Your task to perform on an android device: toggle notifications settings in the gmail app Image 0: 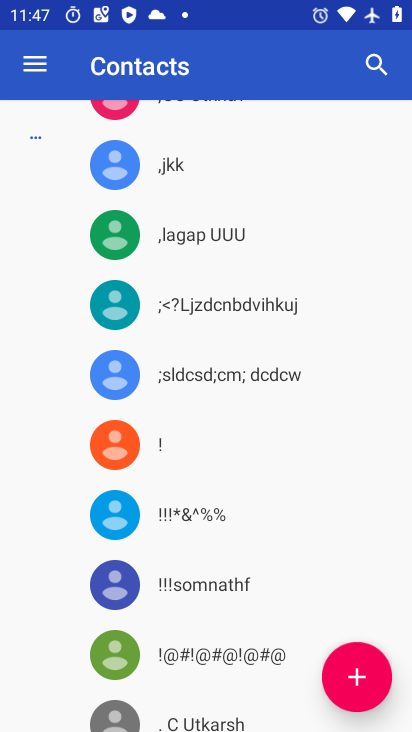
Step 0: press home button
Your task to perform on an android device: toggle notifications settings in the gmail app Image 1: 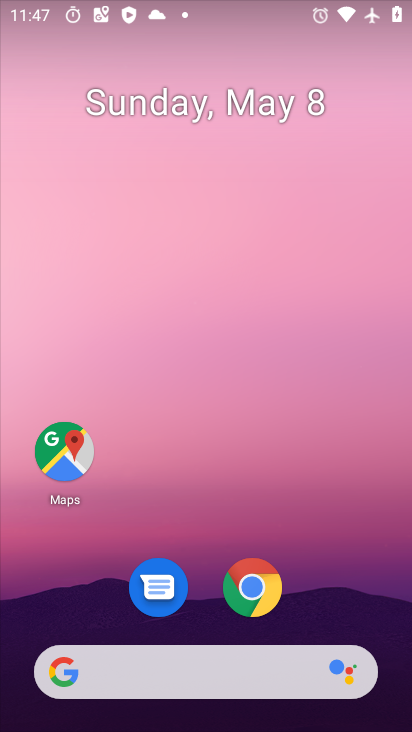
Step 1: drag from (379, 680) to (110, 4)
Your task to perform on an android device: toggle notifications settings in the gmail app Image 2: 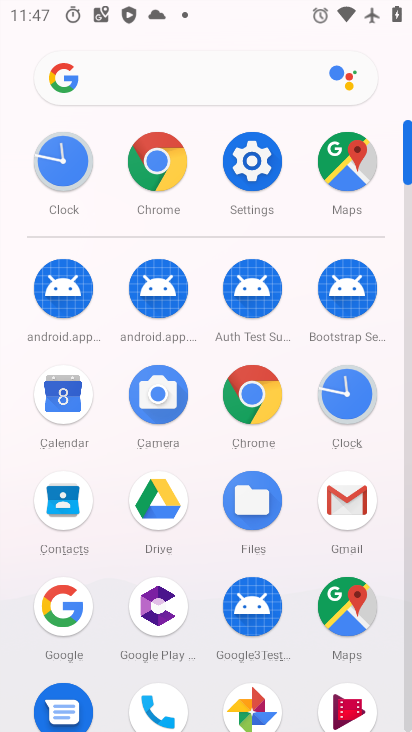
Step 2: click (341, 493)
Your task to perform on an android device: toggle notifications settings in the gmail app Image 3: 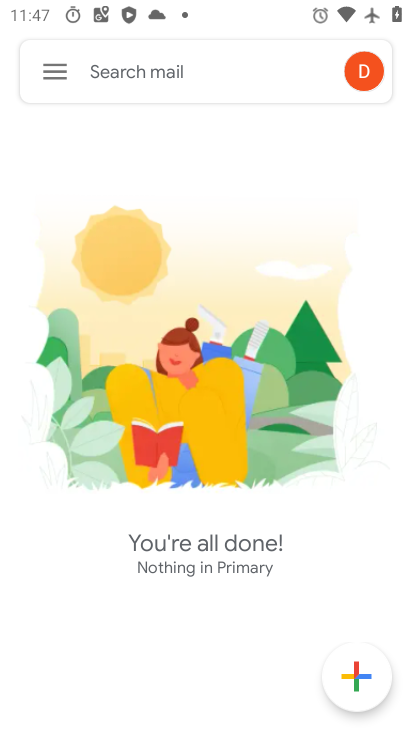
Step 3: click (49, 77)
Your task to perform on an android device: toggle notifications settings in the gmail app Image 4: 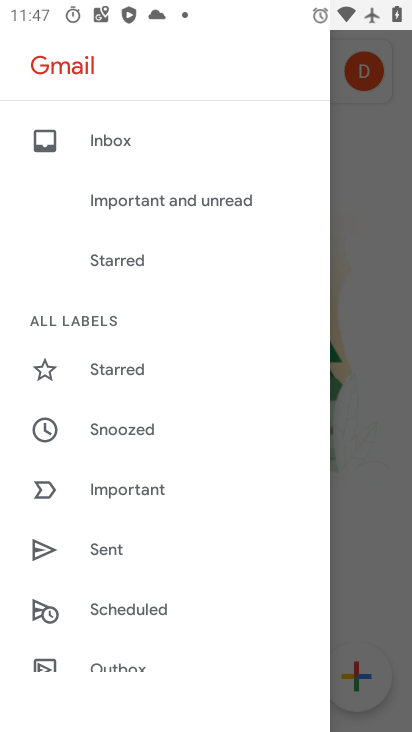
Step 4: drag from (130, 620) to (0, 191)
Your task to perform on an android device: toggle notifications settings in the gmail app Image 5: 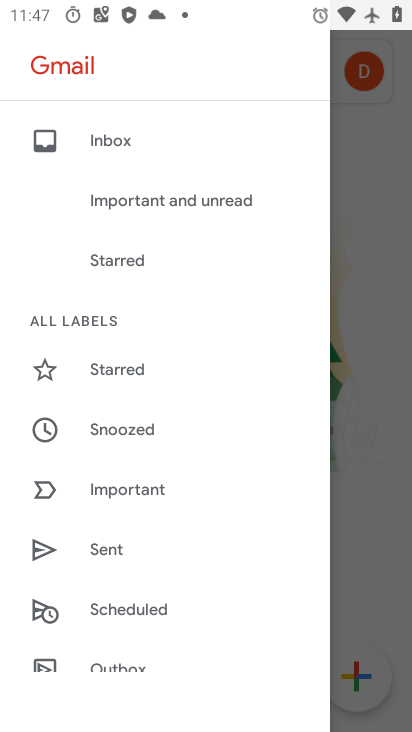
Step 5: drag from (198, 607) to (119, 264)
Your task to perform on an android device: toggle notifications settings in the gmail app Image 6: 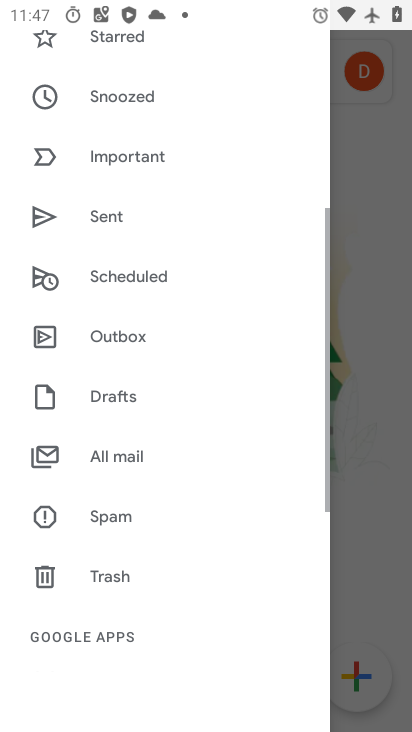
Step 6: drag from (172, 535) to (97, 212)
Your task to perform on an android device: toggle notifications settings in the gmail app Image 7: 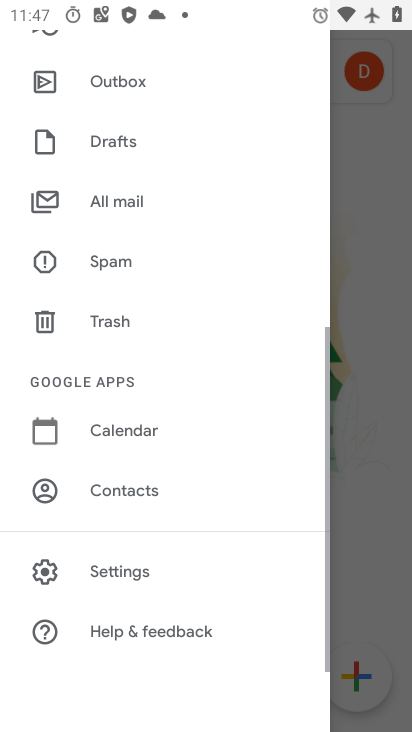
Step 7: drag from (163, 556) to (110, 252)
Your task to perform on an android device: toggle notifications settings in the gmail app Image 8: 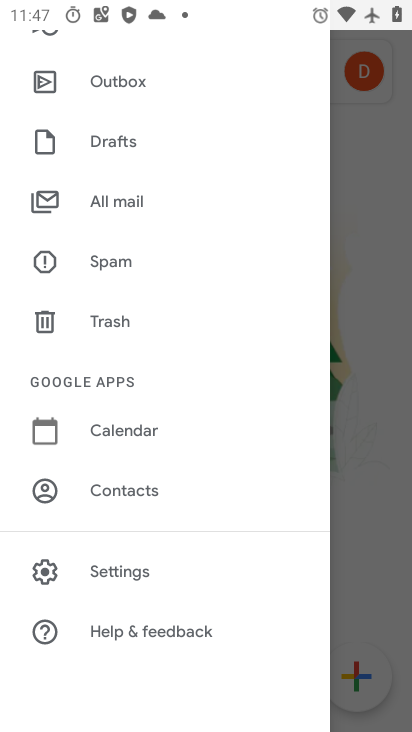
Step 8: click (125, 580)
Your task to perform on an android device: toggle notifications settings in the gmail app Image 9: 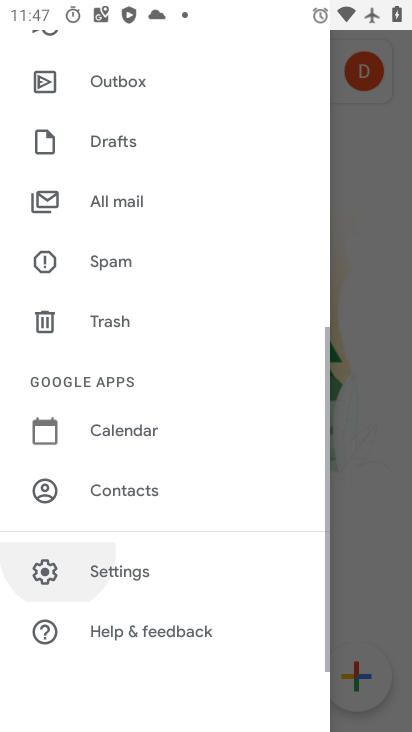
Step 9: click (124, 579)
Your task to perform on an android device: toggle notifications settings in the gmail app Image 10: 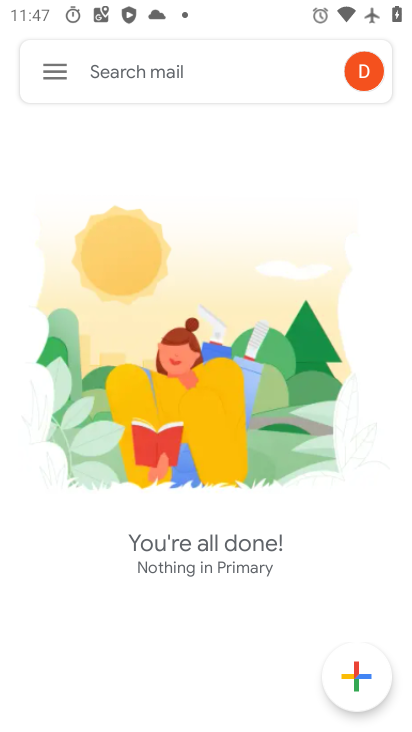
Step 10: click (121, 573)
Your task to perform on an android device: toggle notifications settings in the gmail app Image 11: 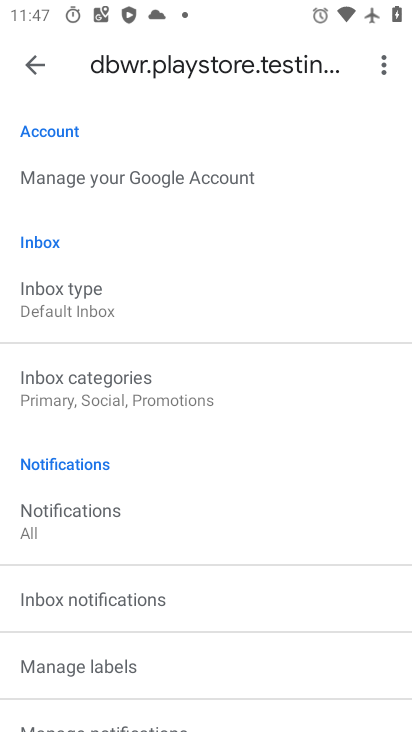
Step 11: click (76, 500)
Your task to perform on an android device: toggle notifications settings in the gmail app Image 12: 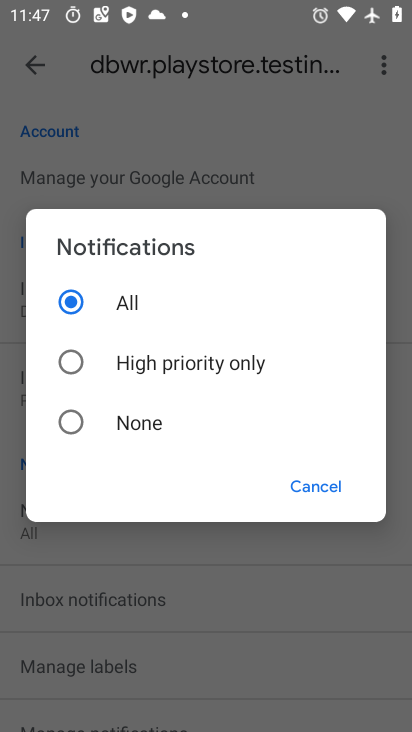
Step 12: click (65, 369)
Your task to perform on an android device: toggle notifications settings in the gmail app Image 13: 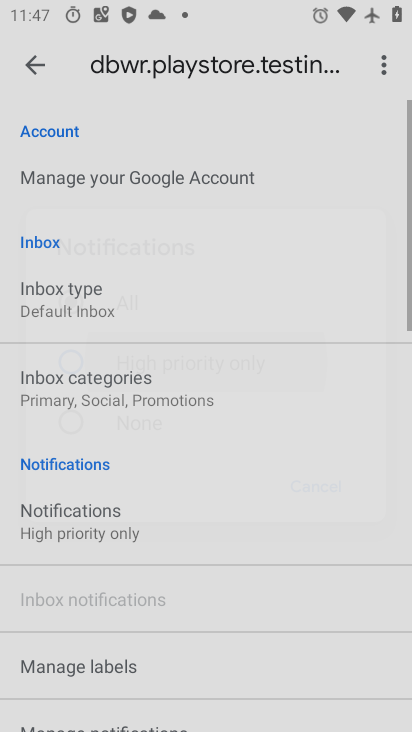
Step 13: click (65, 369)
Your task to perform on an android device: toggle notifications settings in the gmail app Image 14: 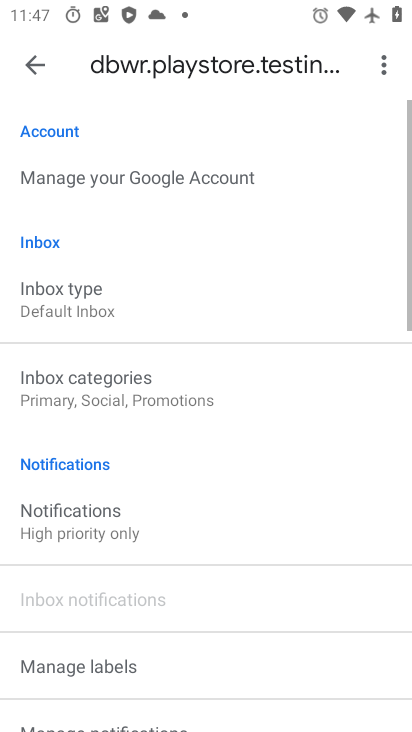
Step 14: click (65, 369)
Your task to perform on an android device: toggle notifications settings in the gmail app Image 15: 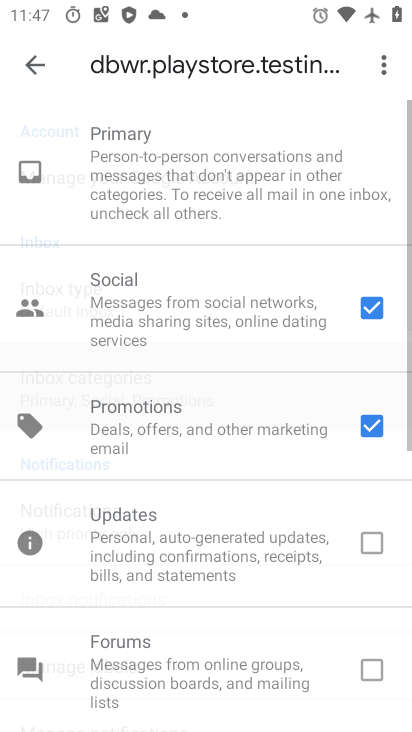
Step 15: click (65, 369)
Your task to perform on an android device: toggle notifications settings in the gmail app Image 16: 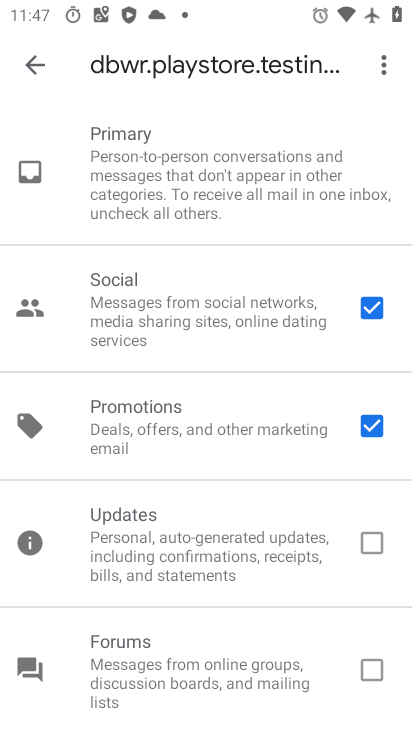
Step 16: task complete